Your task to perform on an android device: Open CNN.com Image 0: 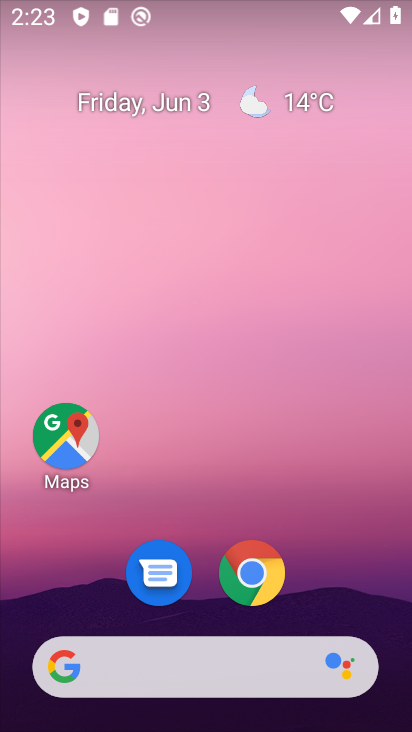
Step 0: drag from (257, 654) to (309, 34)
Your task to perform on an android device: Open CNN.com Image 1: 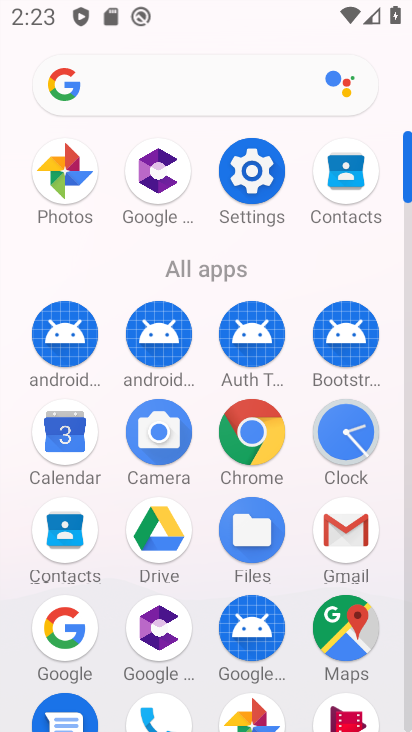
Step 1: click (256, 428)
Your task to perform on an android device: Open CNN.com Image 2: 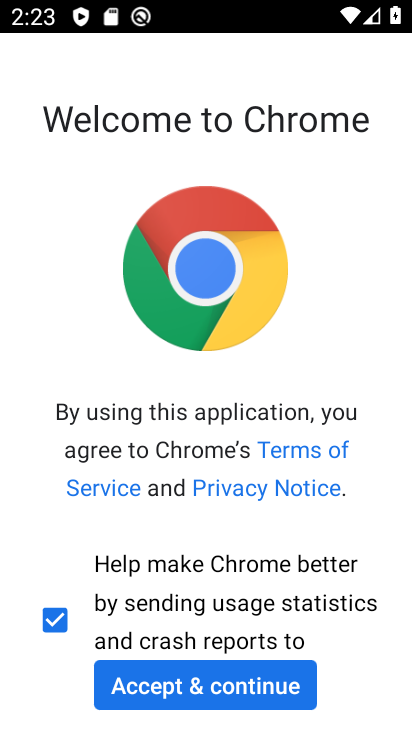
Step 2: click (257, 680)
Your task to perform on an android device: Open CNN.com Image 3: 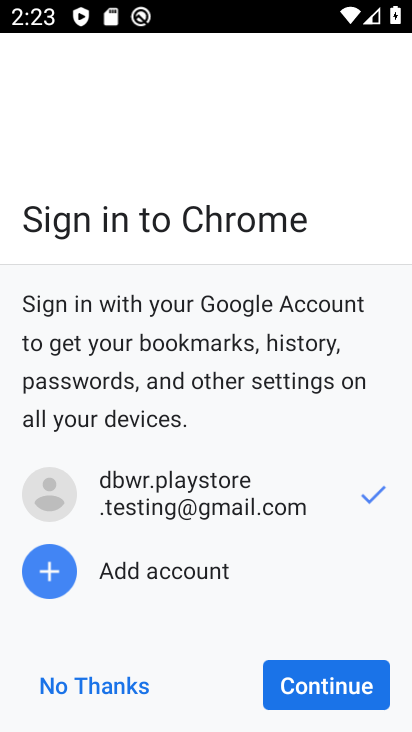
Step 3: click (115, 685)
Your task to perform on an android device: Open CNN.com Image 4: 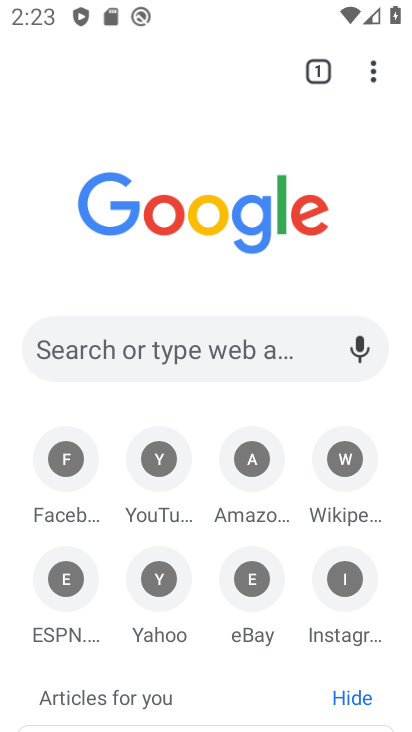
Step 4: click (227, 333)
Your task to perform on an android device: Open CNN.com Image 5: 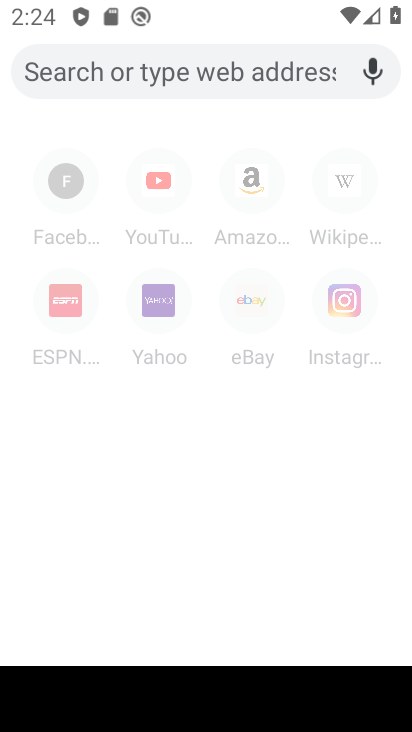
Step 5: type "cnn.com"
Your task to perform on an android device: Open CNN.com Image 6: 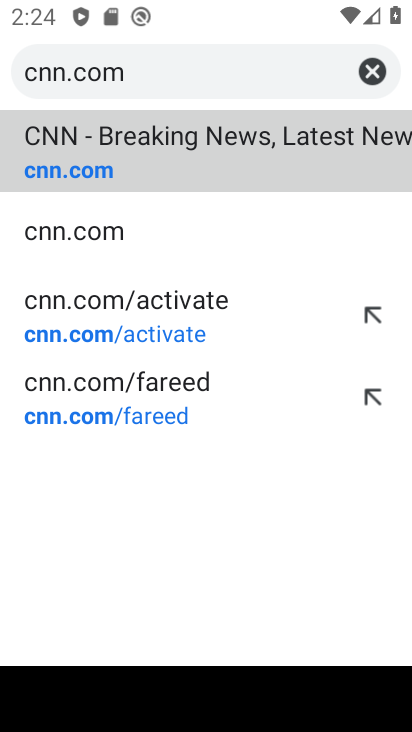
Step 6: click (226, 161)
Your task to perform on an android device: Open CNN.com Image 7: 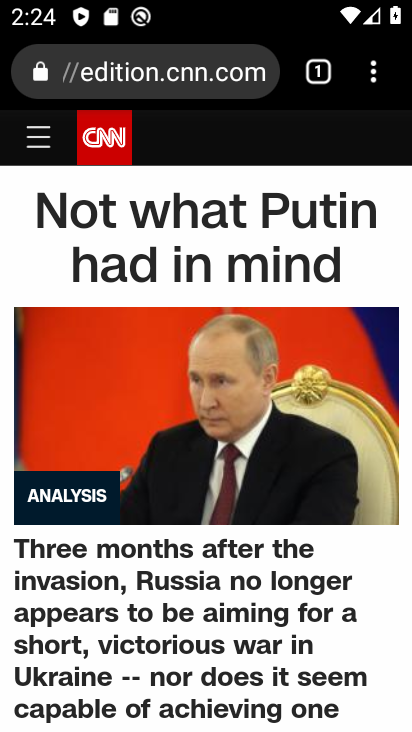
Step 7: task complete